Your task to perform on an android device: turn off javascript in the chrome app Image 0: 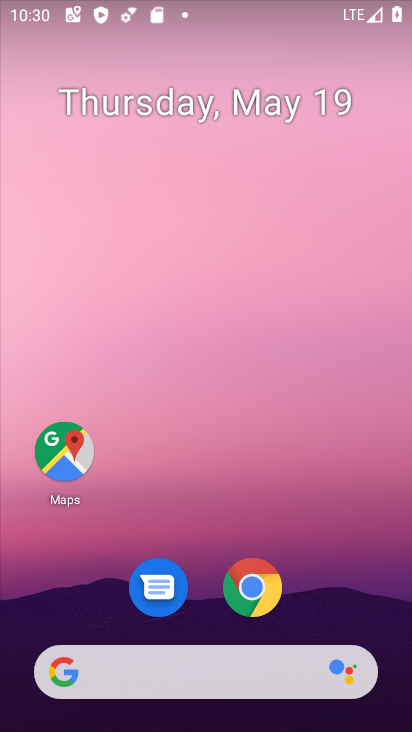
Step 0: click (252, 591)
Your task to perform on an android device: turn off javascript in the chrome app Image 1: 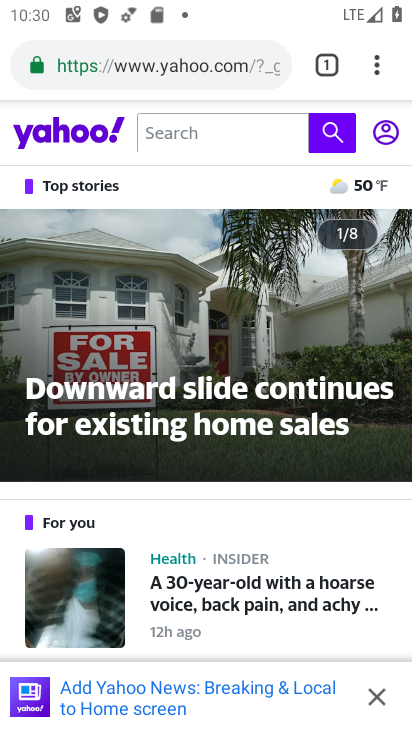
Step 1: click (392, 62)
Your task to perform on an android device: turn off javascript in the chrome app Image 2: 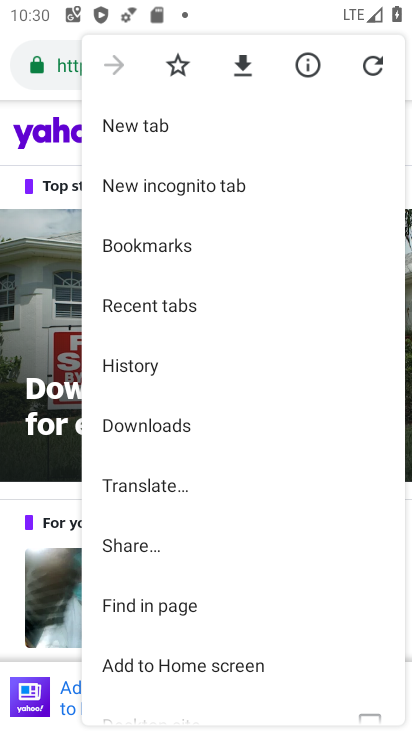
Step 2: drag from (177, 647) to (244, 132)
Your task to perform on an android device: turn off javascript in the chrome app Image 3: 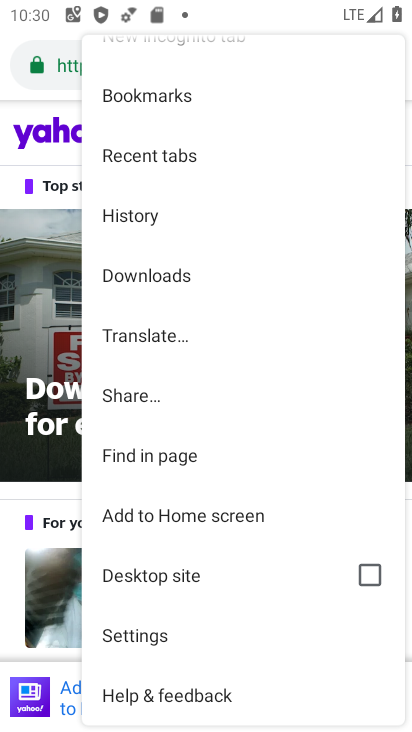
Step 3: click (136, 639)
Your task to perform on an android device: turn off javascript in the chrome app Image 4: 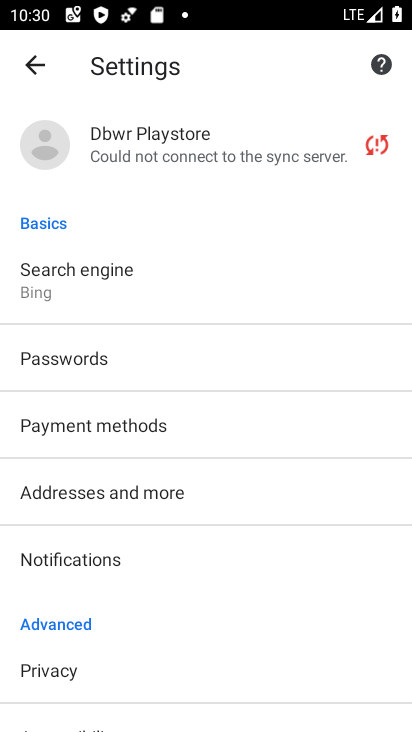
Step 4: drag from (142, 642) to (171, 263)
Your task to perform on an android device: turn off javascript in the chrome app Image 5: 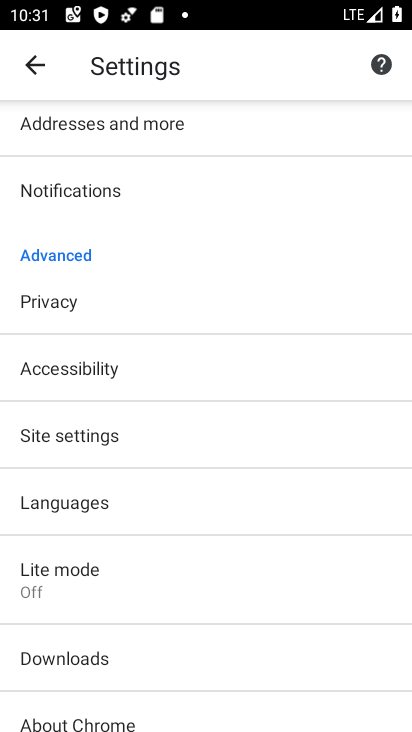
Step 5: click (113, 429)
Your task to perform on an android device: turn off javascript in the chrome app Image 6: 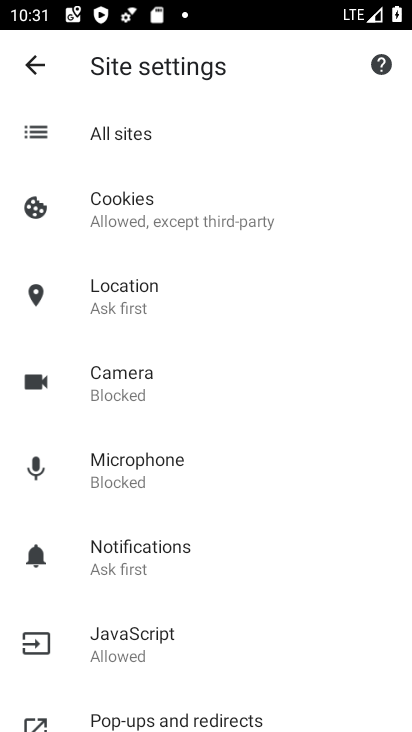
Step 6: click (159, 624)
Your task to perform on an android device: turn off javascript in the chrome app Image 7: 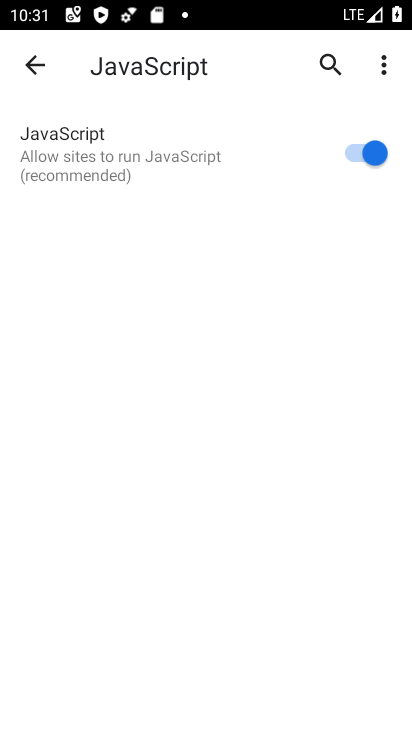
Step 7: click (365, 160)
Your task to perform on an android device: turn off javascript in the chrome app Image 8: 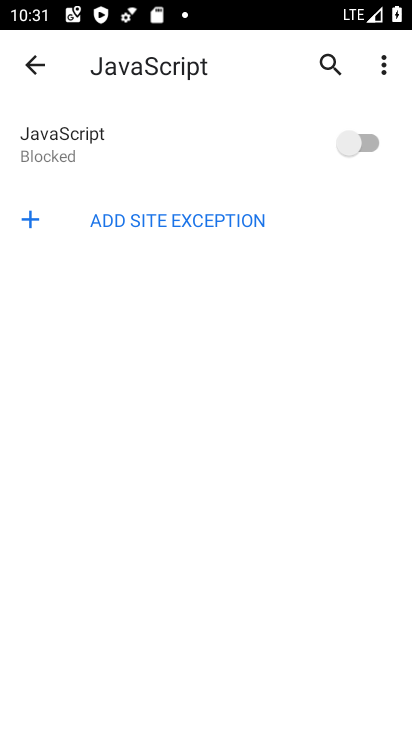
Step 8: task complete